Your task to perform on an android device: turn off location Image 0: 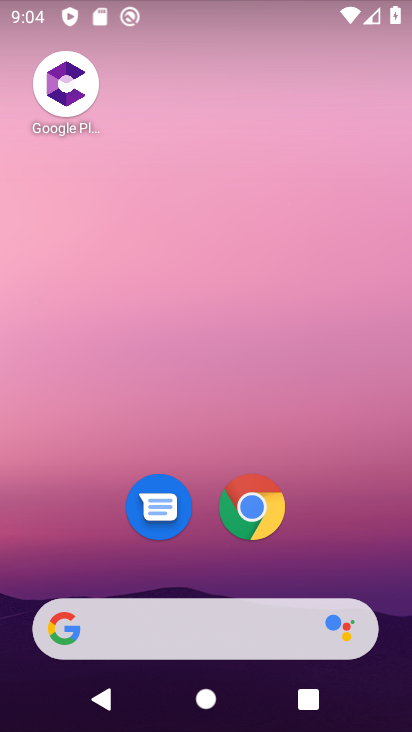
Step 0: drag from (382, 576) to (341, 200)
Your task to perform on an android device: turn off location Image 1: 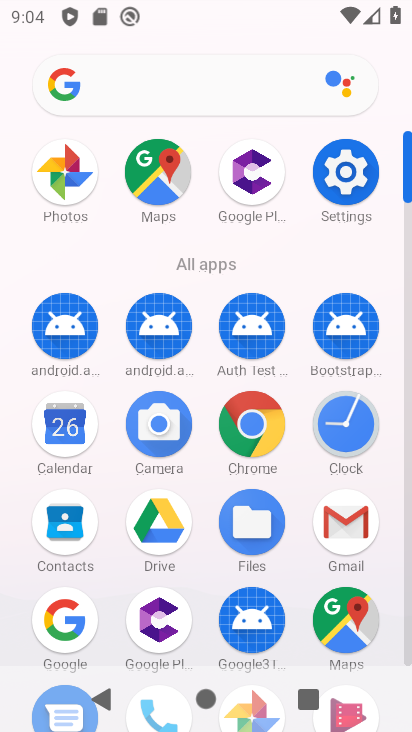
Step 1: click (354, 173)
Your task to perform on an android device: turn off location Image 2: 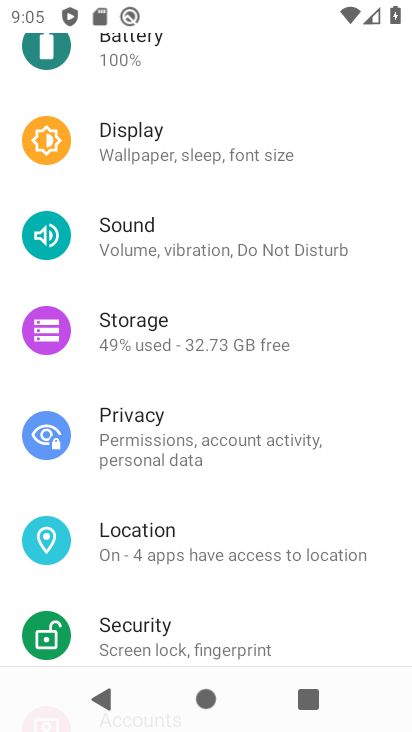
Step 2: drag from (371, 263) to (363, 443)
Your task to perform on an android device: turn off location Image 3: 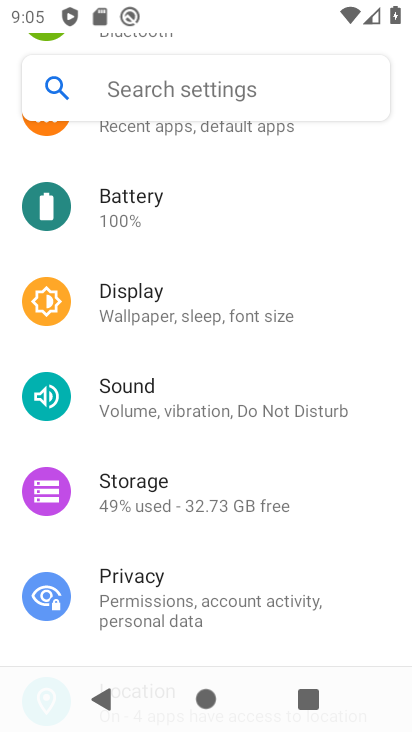
Step 3: drag from (342, 215) to (352, 426)
Your task to perform on an android device: turn off location Image 4: 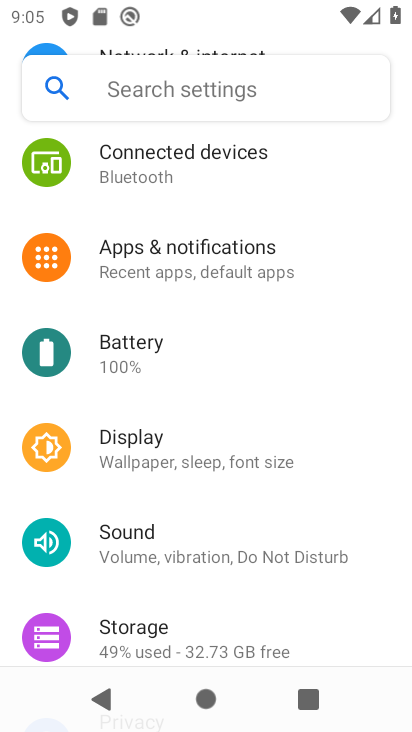
Step 4: drag from (353, 244) to (352, 394)
Your task to perform on an android device: turn off location Image 5: 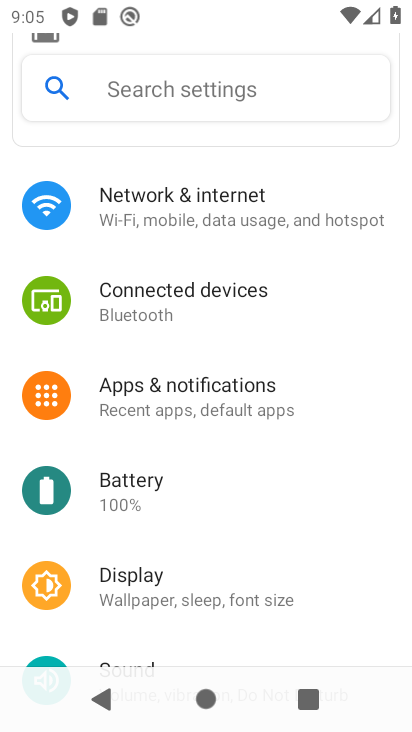
Step 5: drag from (348, 257) to (345, 430)
Your task to perform on an android device: turn off location Image 6: 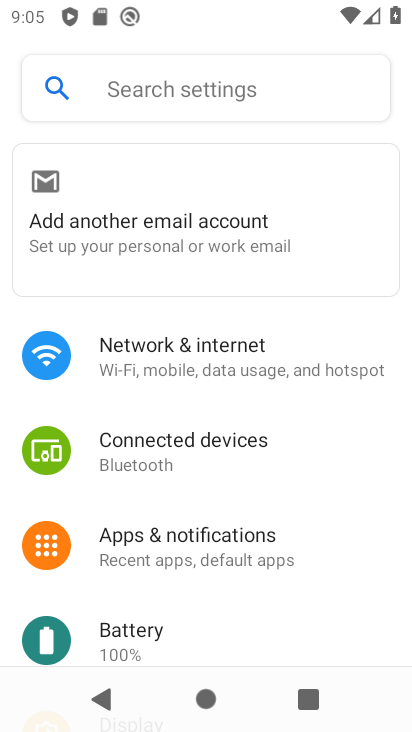
Step 6: drag from (345, 208) to (342, 435)
Your task to perform on an android device: turn off location Image 7: 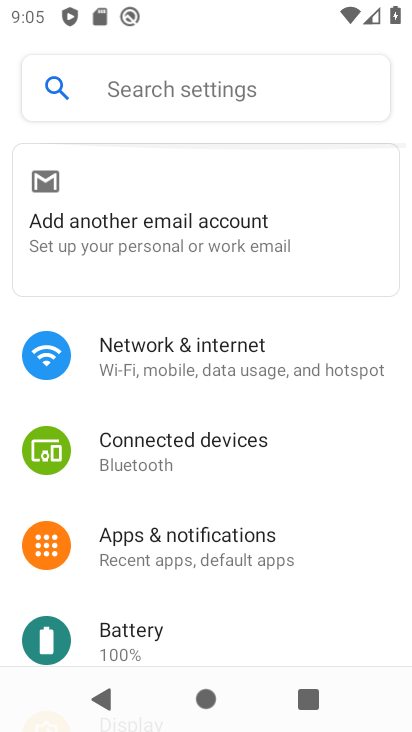
Step 7: drag from (330, 460) to (352, 300)
Your task to perform on an android device: turn off location Image 8: 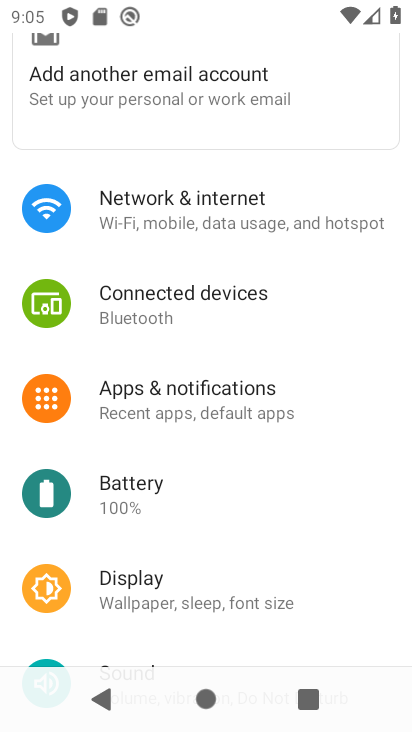
Step 8: drag from (360, 488) to (360, 312)
Your task to perform on an android device: turn off location Image 9: 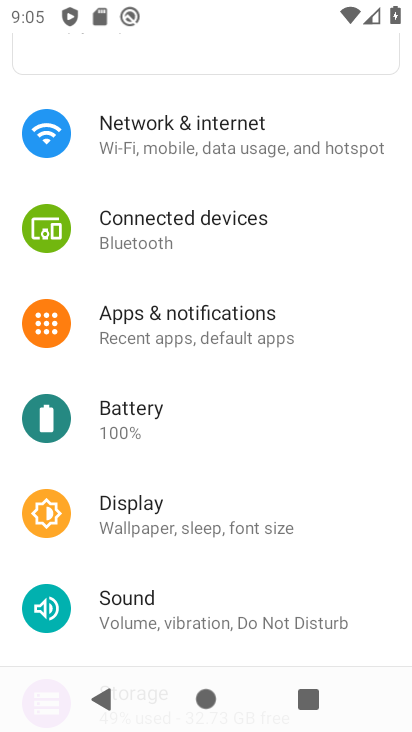
Step 9: drag from (350, 495) to (349, 333)
Your task to perform on an android device: turn off location Image 10: 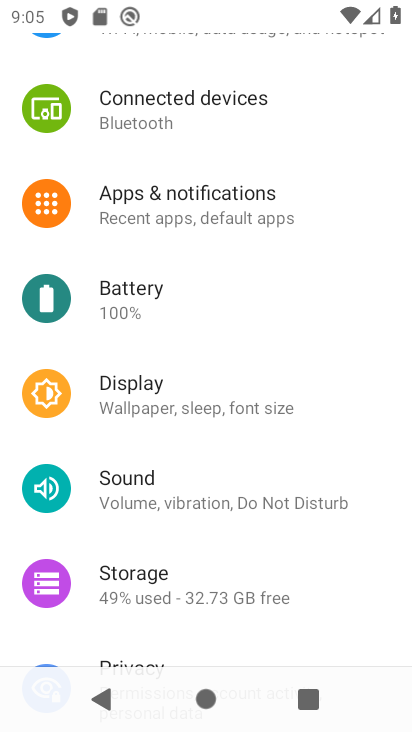
Step 10: drag from (340, 473) to (332, 318)
Your task to perform on an android device: turn off location Image 11: 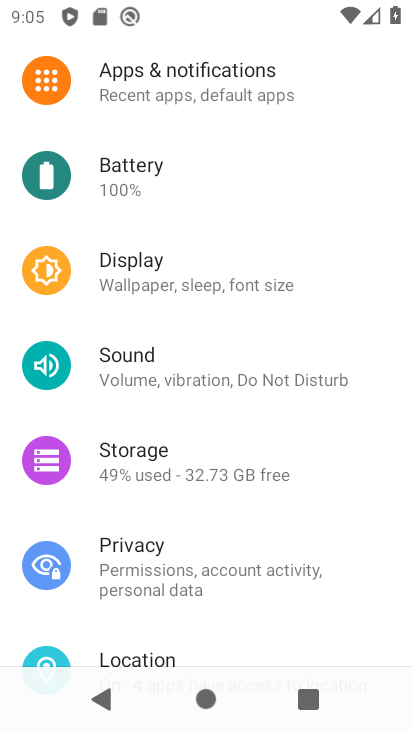
Step 11: drag from (331, 527) to (340, 383)
Your task to perform on an android device: turn off location Image 12: 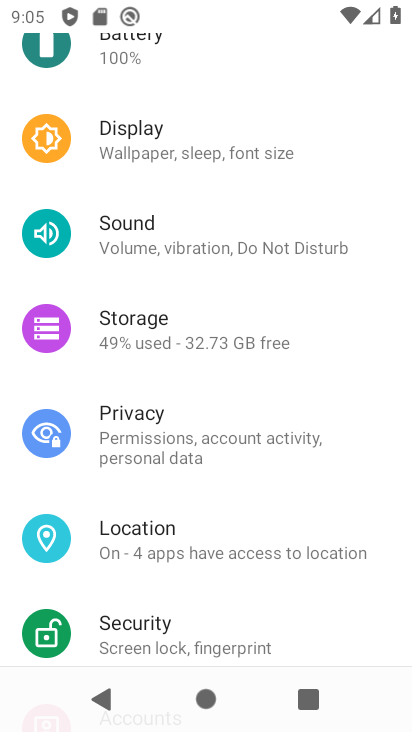
Step 12: drag from (326, 614) to (346, 401)
Your task to perform on an android device: turn off location Image 13: 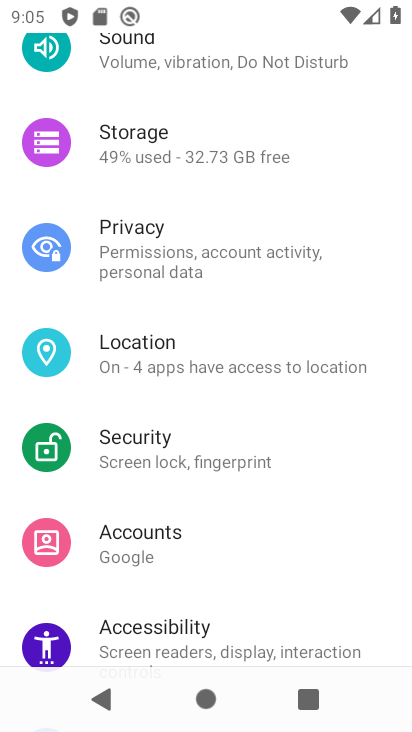
Step 13: click (324, 370)
Your task to perform on an android device: turn off location Image 14: 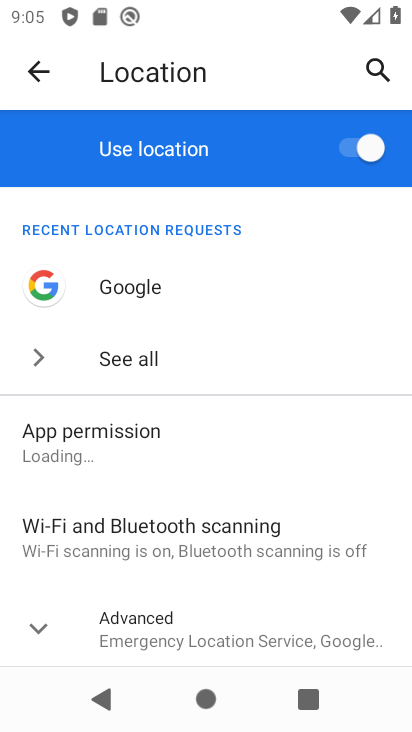
Step 14: click (360, 152)
Your task to perform on an android device: turn off location Image 15: 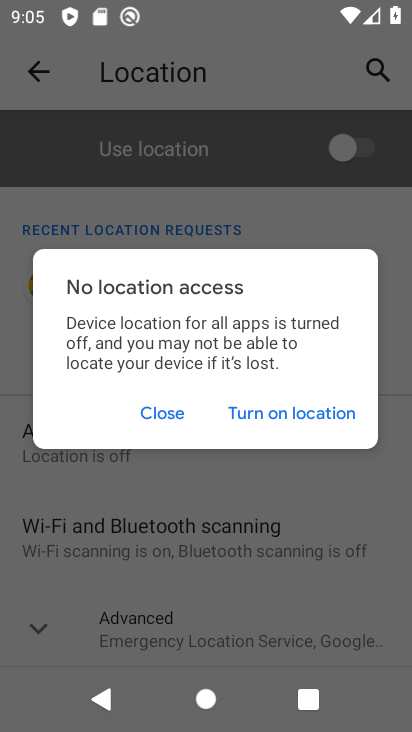
Step 15: task complete